Your task to perform on an android device: delete location history Image 0: 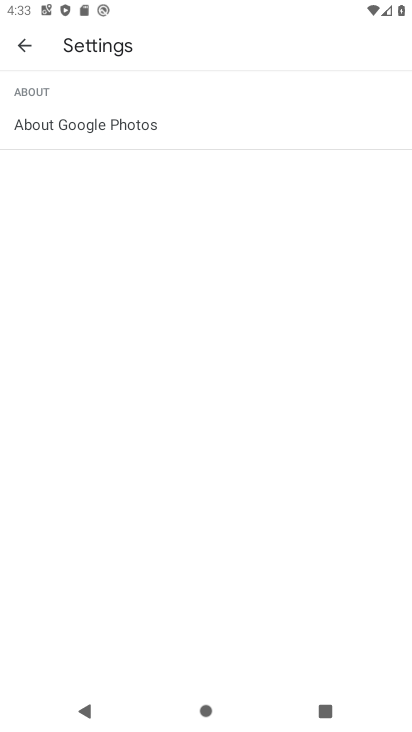
Step 0: press back button
Your task to perform on an android device: delete location history Image 1: 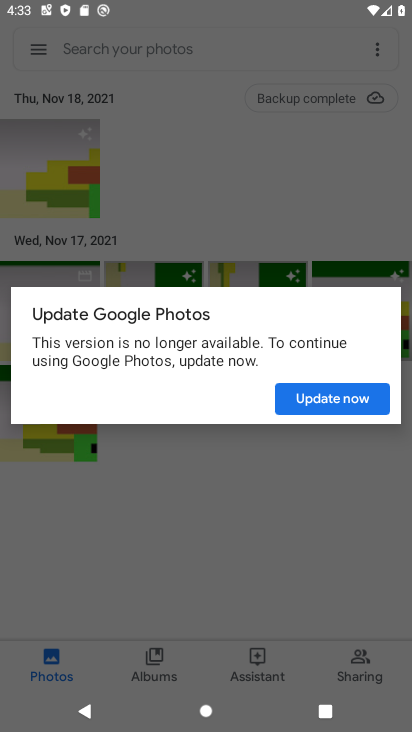
Step 1: press home button
Your task to perform on an android device: delete location history Image 2: 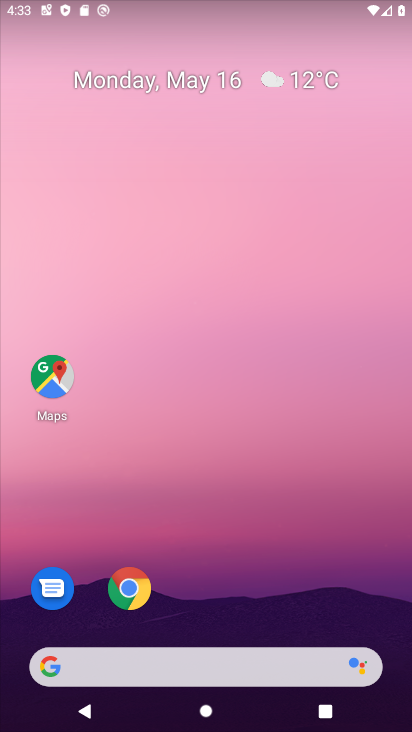
Step 2: drag from (211, 596) to (284, 52)
Your task to perform on an android device: delete location history Image 3: 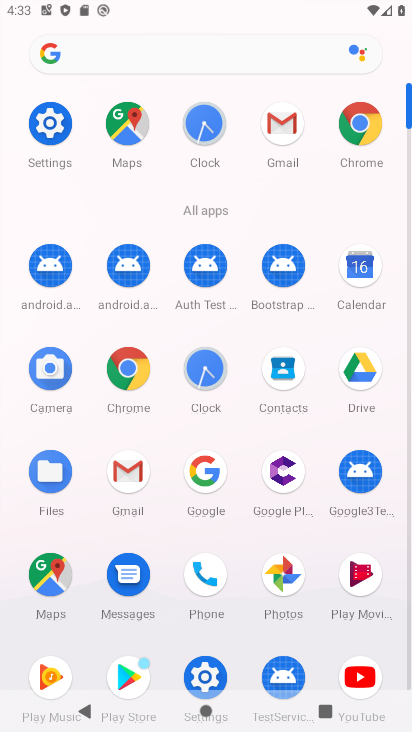
Step 3: click (49, 140)
Your task to perform on an android device: delete location history Image 4: 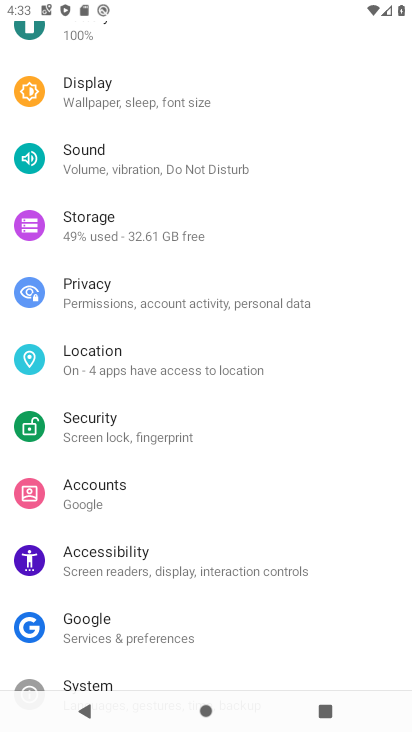
Step 4: press home button
Your task to perform on an android device: delete location history Image 5: 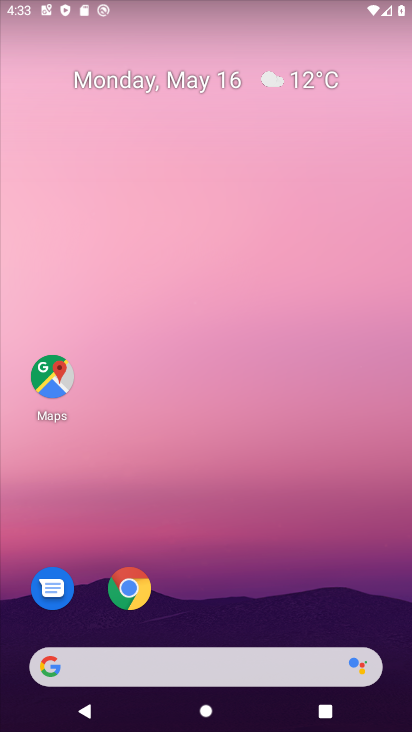
Step 5: click (39, 368)
Your task to perform on an android device: delete location history Image 6: 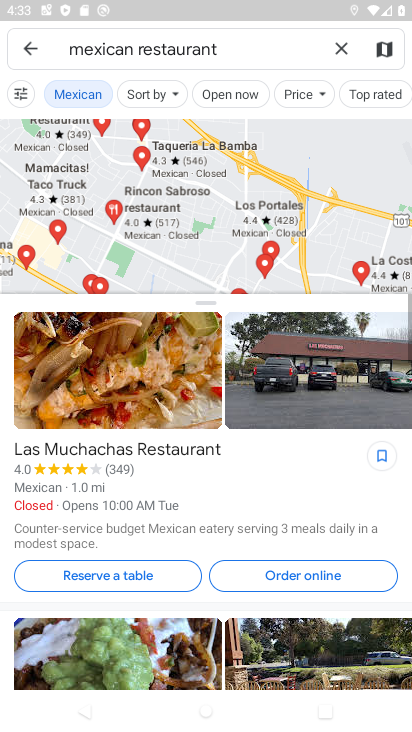
Step 6: click (21, 38)
Your task to perform on an android device: delete location history Image 7: 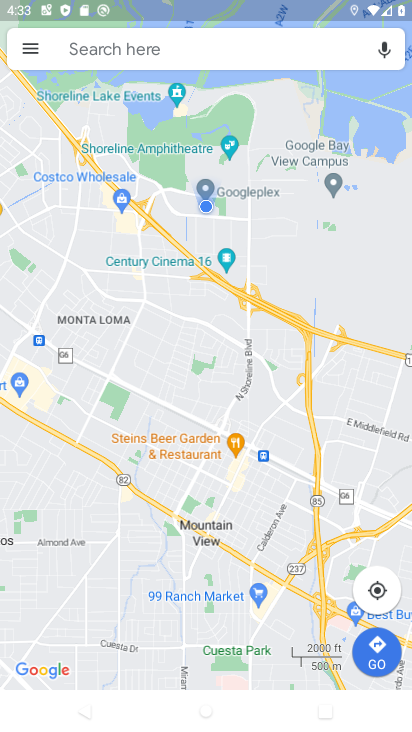
Step 7: click (22, 39)
Your task to perform on an android device: delete location history Image 8: 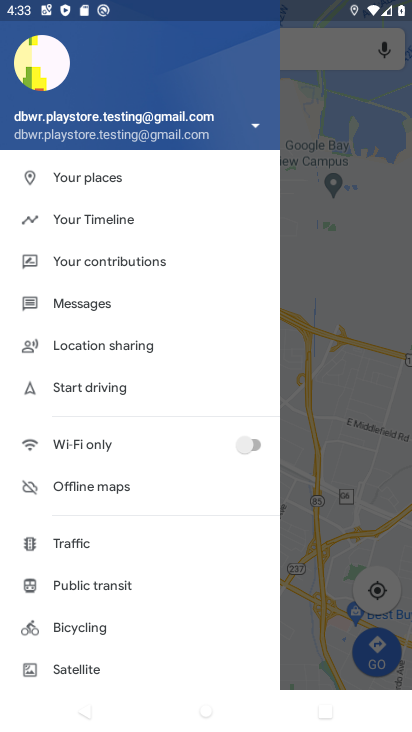
Step 8: drag from (101, 591) to (104, 728)
Your task to perform on an android device: delete location history Image 9: 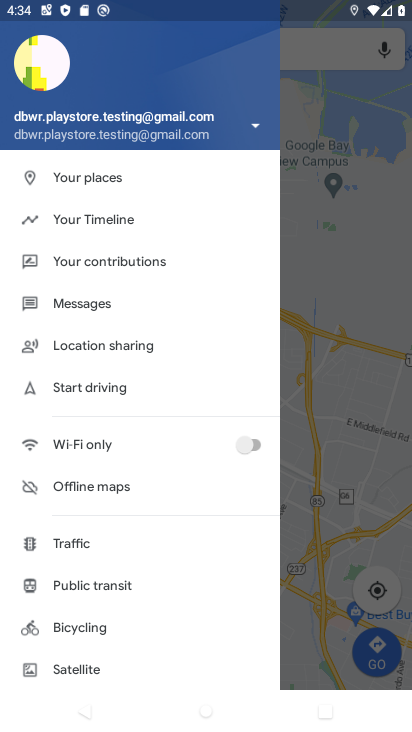
Step 9: click (103, 216)
Your task to perform on an android device: delete location history Image 10: 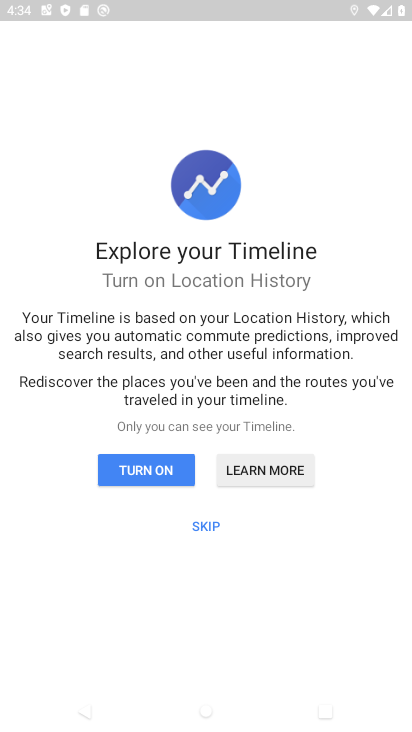
Step 10: click (195, 521)
Your task to perform on an android device: delete location history Image 11: 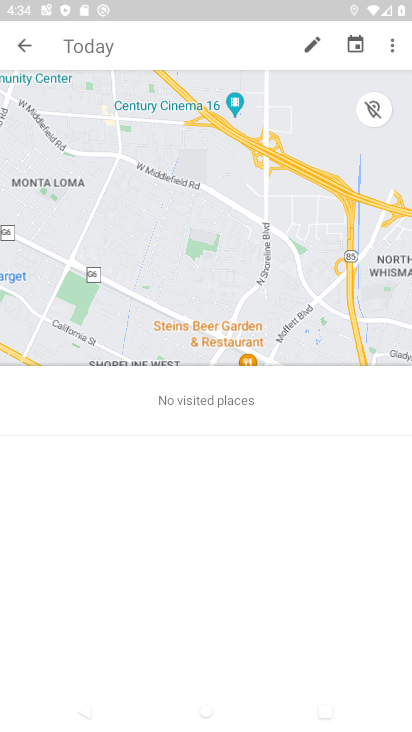
Step 11: click (389, 47)
Your task to perform on an android device: delete location history Image 12: 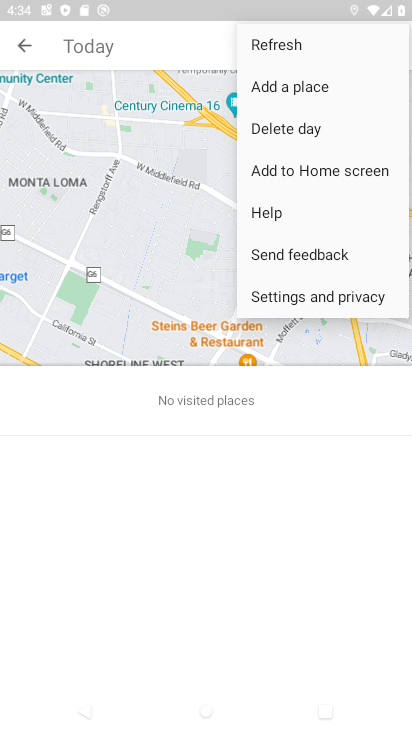
Step 12: click (313, 290)
Your task to perform on an android device: delete location history Image 13: 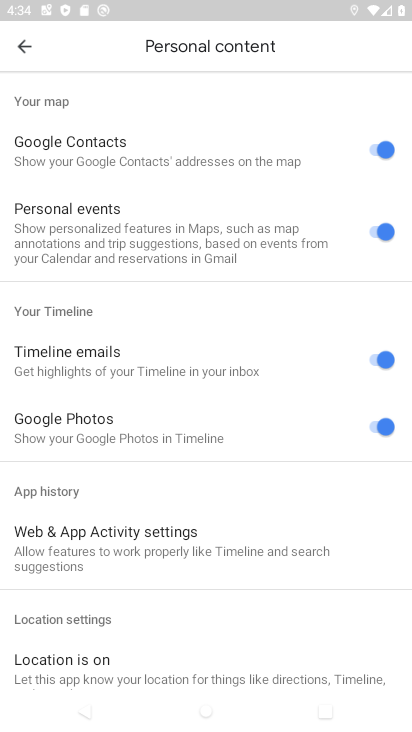
Step 13: drag from (126, 652) to (218, 117)
Your task to perform on an android device: delete location history Image 14: 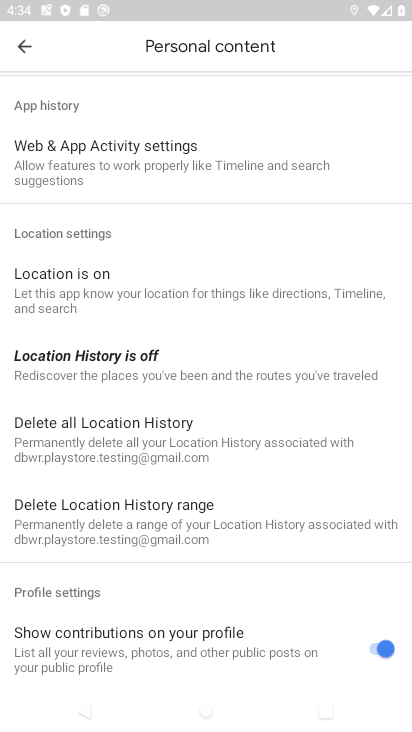
Step 14: click (166, 435)
Your task to perform on an android device: delete location history Image 15: 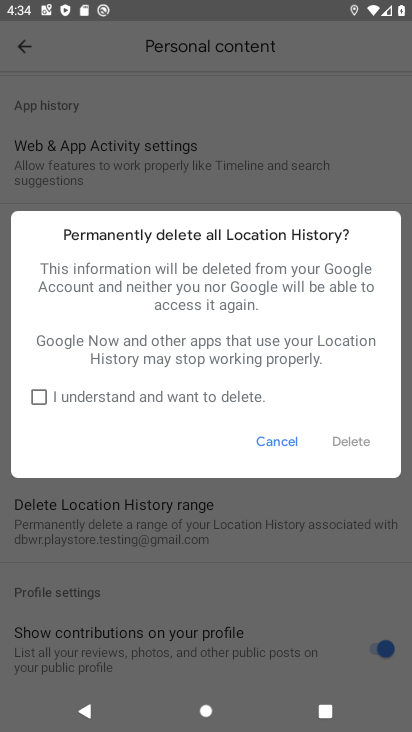
Step 15: click (39, 386)
Your task to perform on an android device: delete location history Image 16: 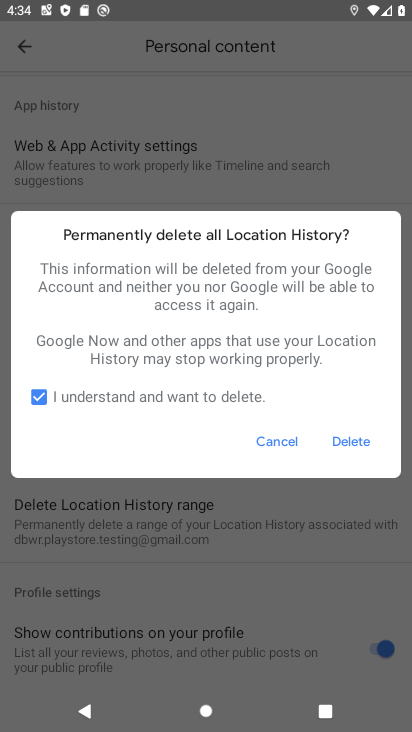
Step 16: click (360, 434)
Your task to perform on an android device: delete location history Image 17: 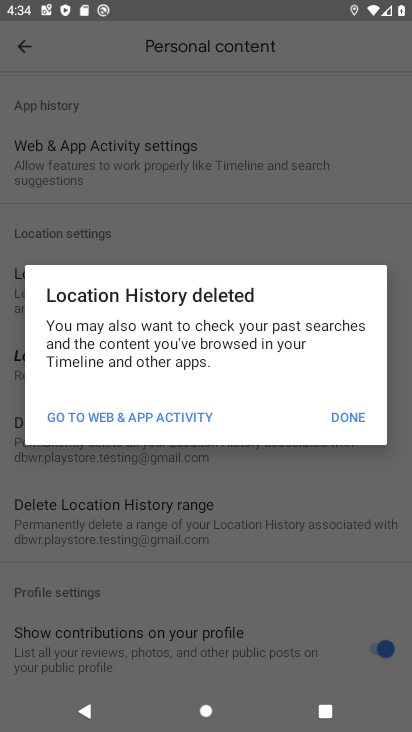
Step 17: click (374, 403)
Your task to perform on an android device: delete location history Image 18: 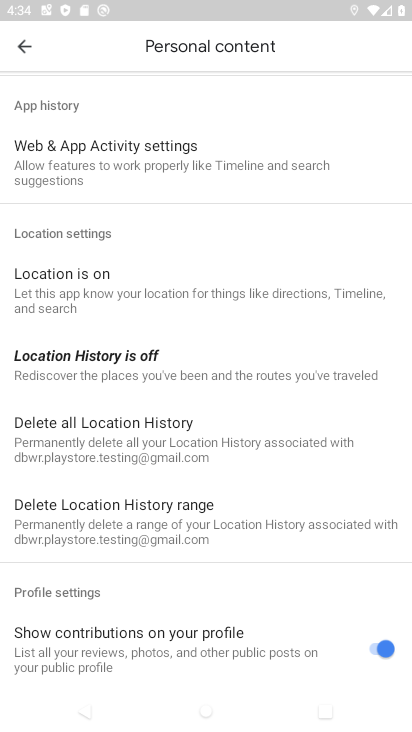
Step 18: task complete